Your task to perform on an android device: Open the calendar app, open the side menu, and click the "Day" option Image 0: 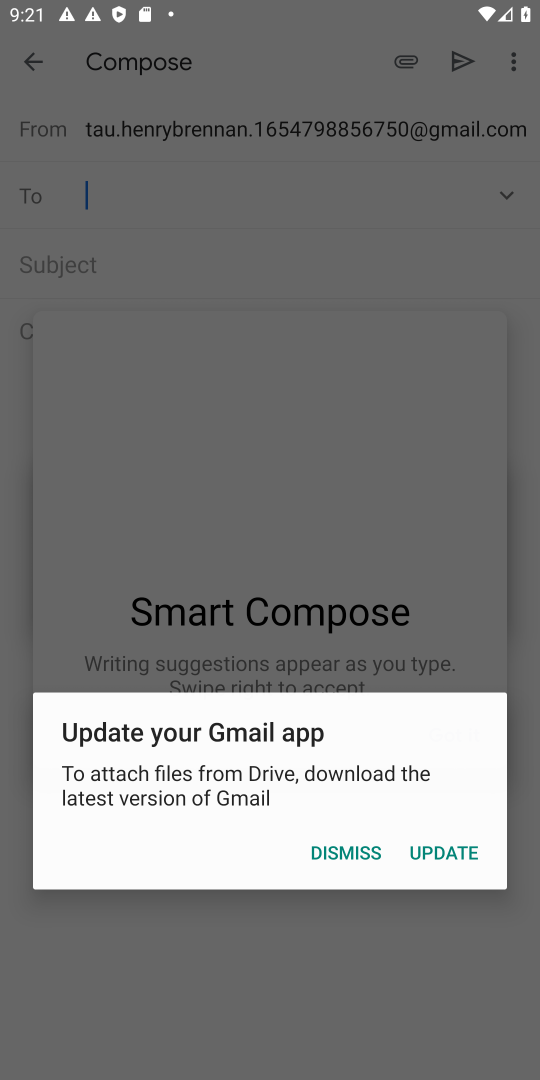
Step 0: click (436, 743)
Your task to perform on an android device: Open the calendar app, open the side menu, and click the "Day" option Image 1: 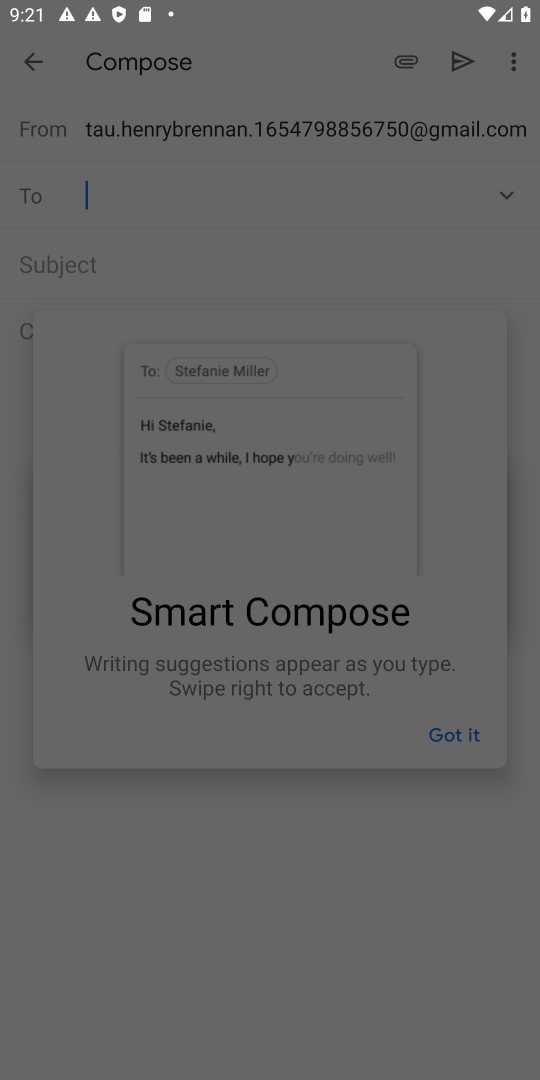
Step 1: click (433, 742)
Your task to perform on an android device: Open the calendar app, open the side menu, and click the "Day" option Image 2: 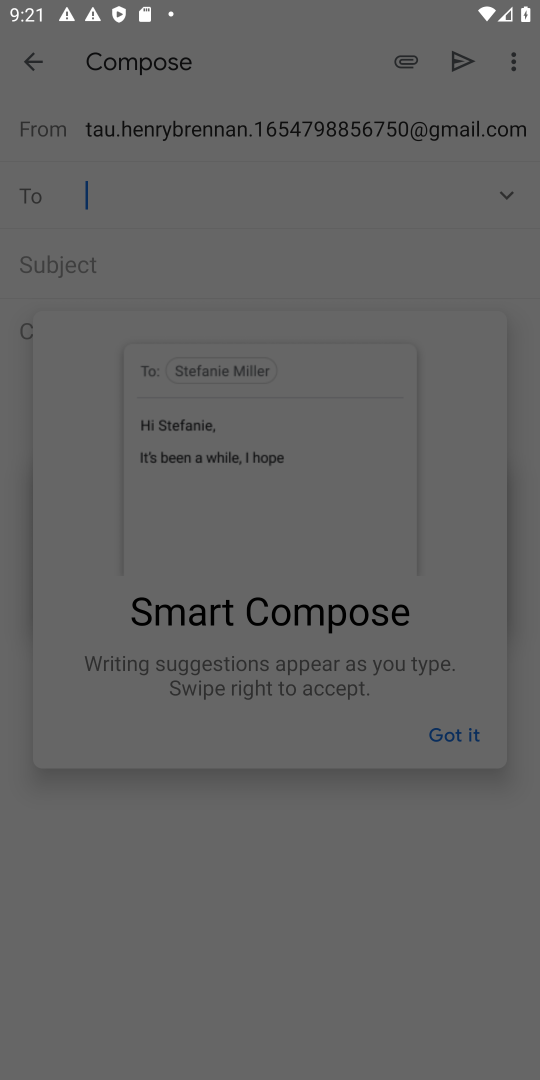
Step 2: click (478, 739)
Your task to perform on an android device: Open the calendar app, open the side menu, and click the "Day" option Image 3: 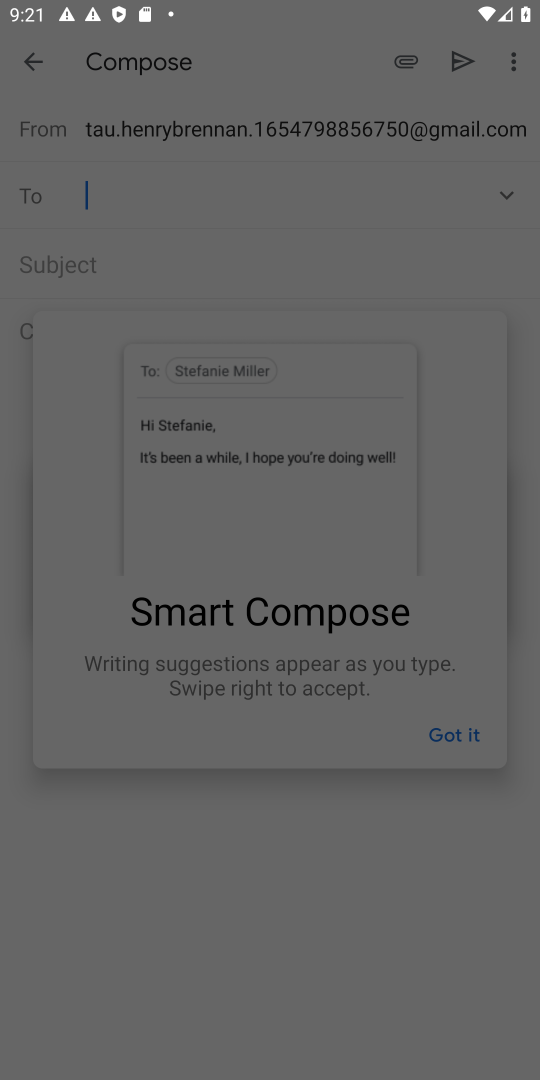
Step 3: click (459, 742)
Your task to perform on an android device: Open the calendar app, open the side menu, and click the "Day" option Image 4: 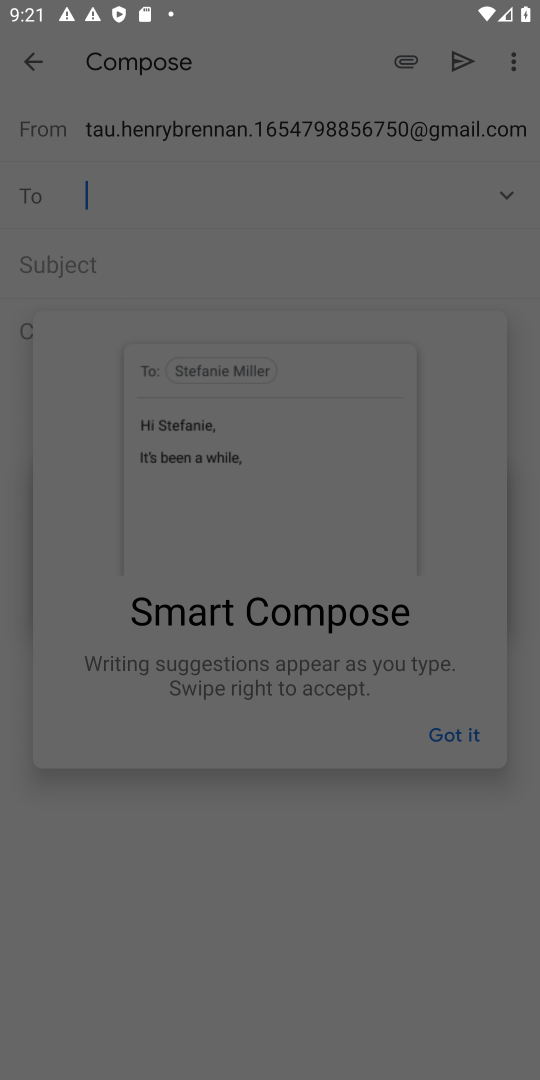
Step 4: click (216, 254)
Your task to perform on an android device: Open the calendar app, open the side menu, and click the "Day" option Image 5: 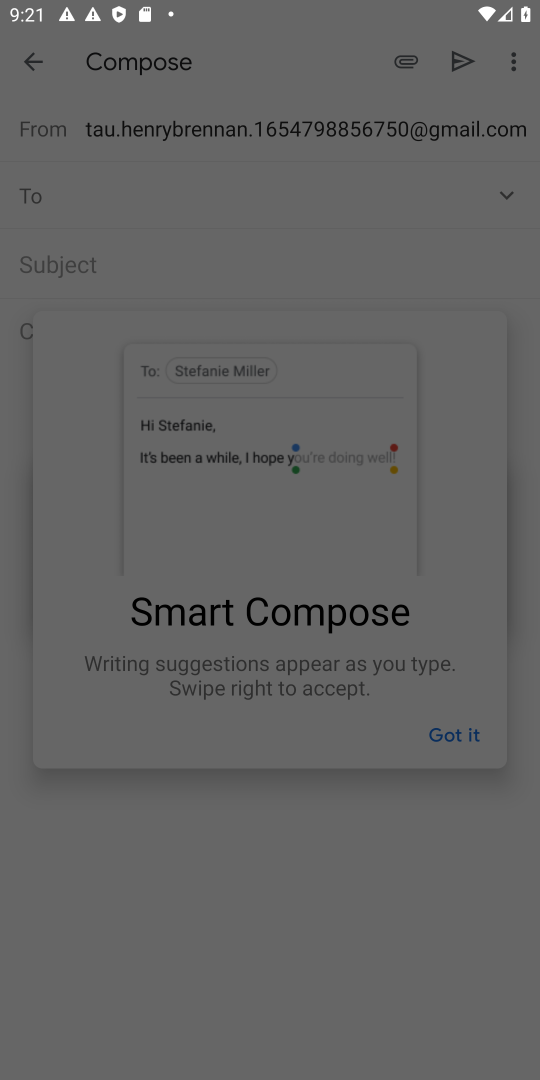
Step 5: drag from (263, 237) to (306, 856)
Your task to perform on an android device: Open the calendar app, open the side menu, and click the "Day" option Image 6: 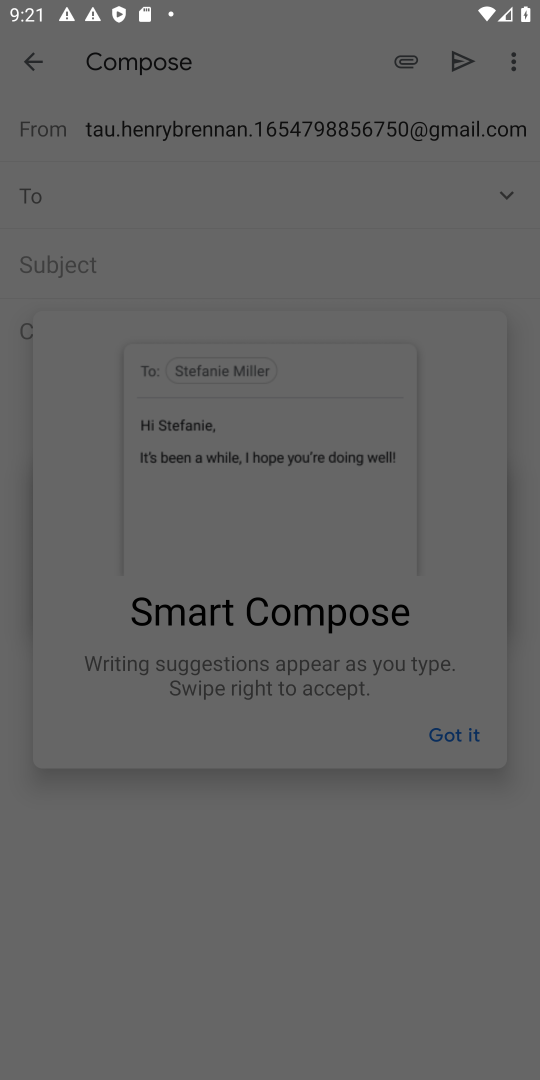
Step 6: click (437, 739)
Your task to perform on an android device: Open the calendar app, open the side menu, and click the "Day" option Image 7: 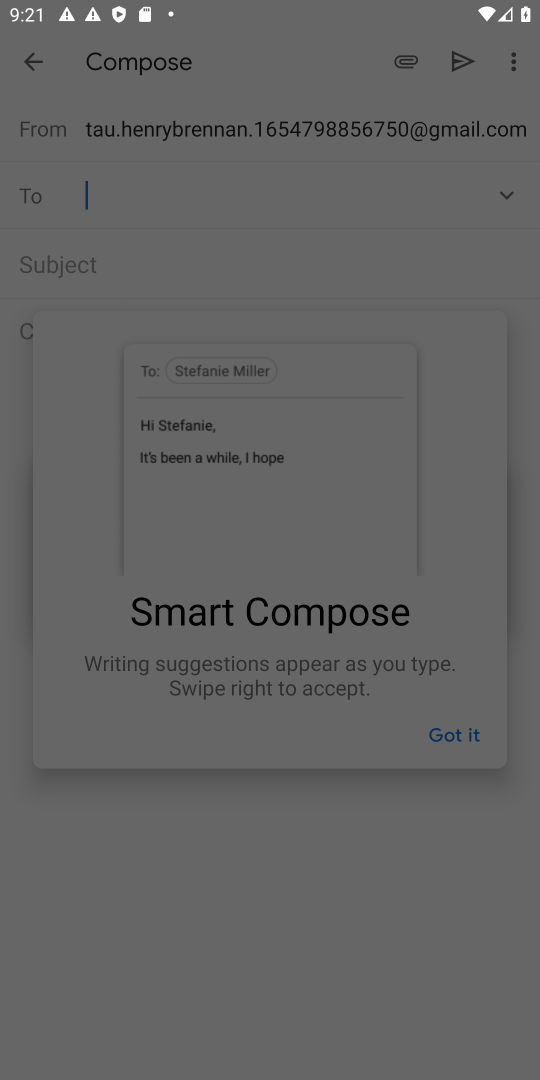
Step 7: press home button
Your task to perform on an android device: Open the calendar app, open the side menu, and click the "Day" option Image 8: 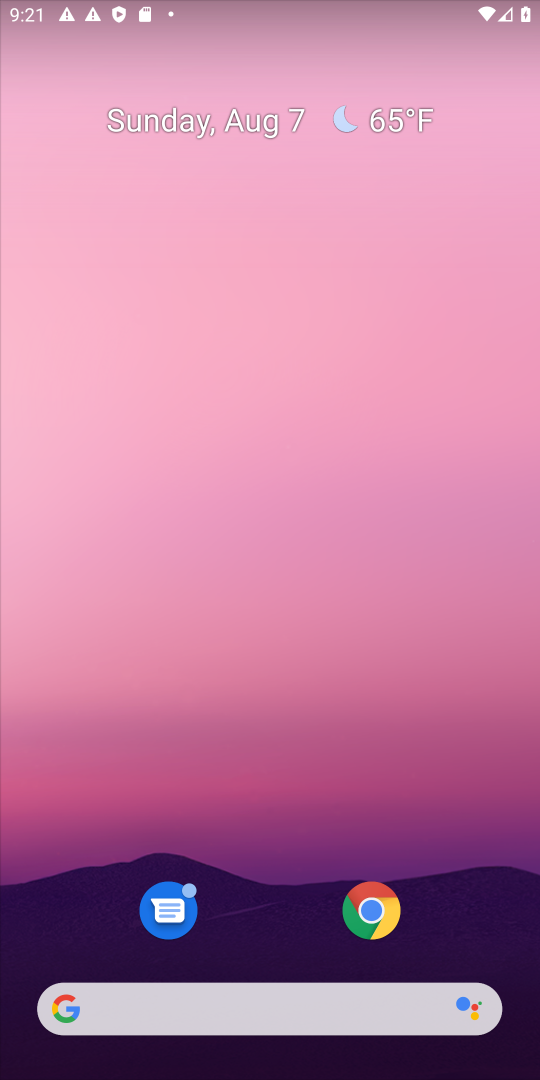
Step 8: drag from (290, 939) to (355, 271)
Your task to perform on an android device: Open the calendar app, open the side menu, and click the "Day" option Image 9: 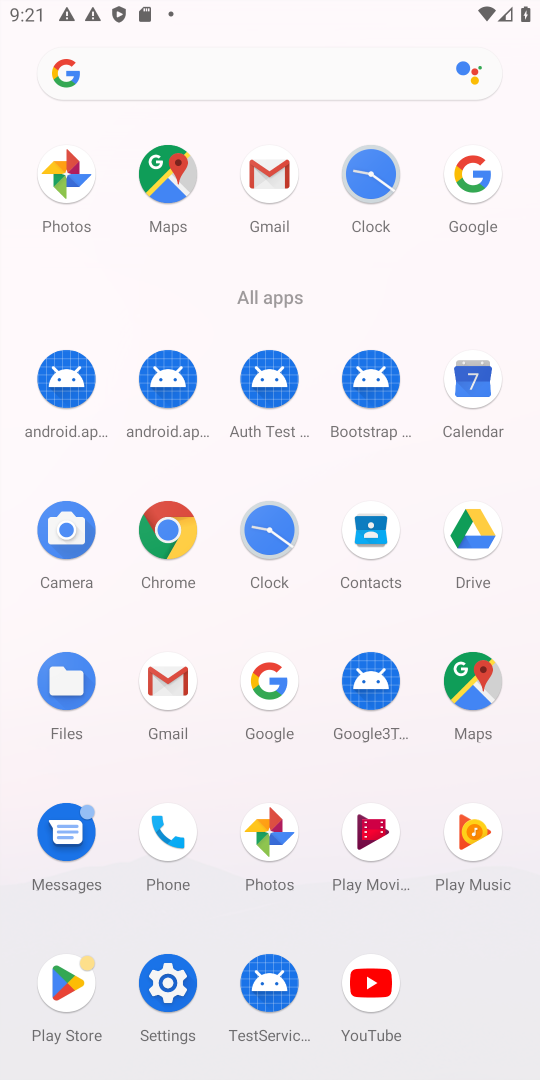
Step 9: click (484, 383)
Your task to perform on an android device: Open the calendar app, open the side menu, and click the "Day" option Image 10: 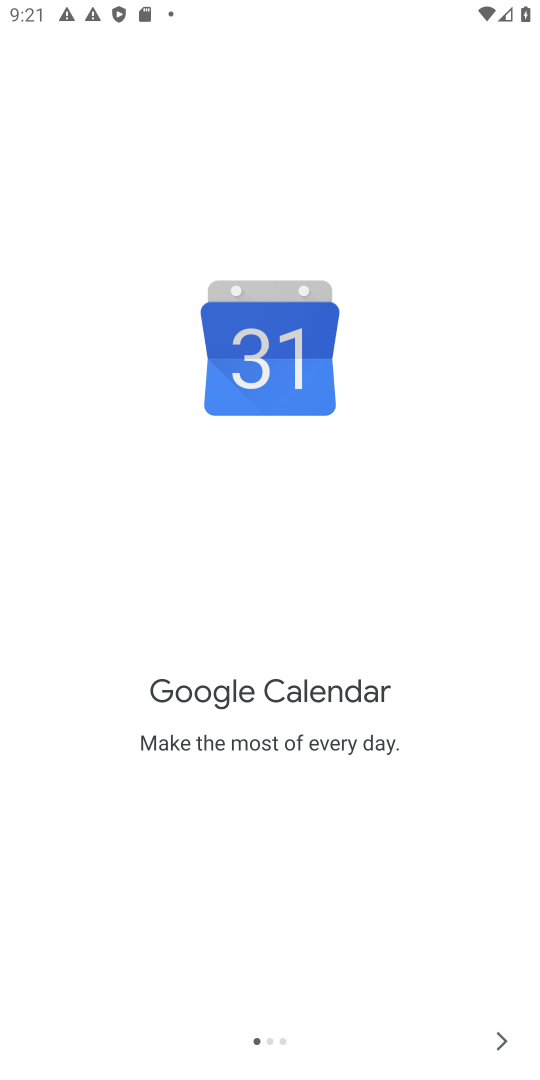
Step 10: click (492, 1042)
Your task to perform on an android device: Open the calendar app, open the side menu, and click the "Day" option Image 11: 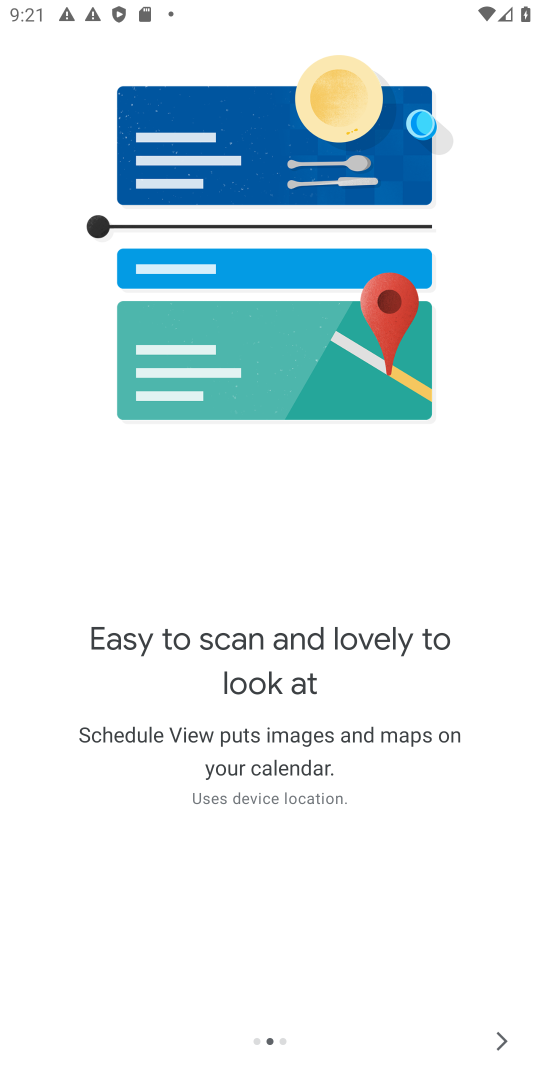
Step 11: click (492, 1042)
Your task to perform on an android device: Open the calendar app, open the side menu, and click the "Day" option Image 12: 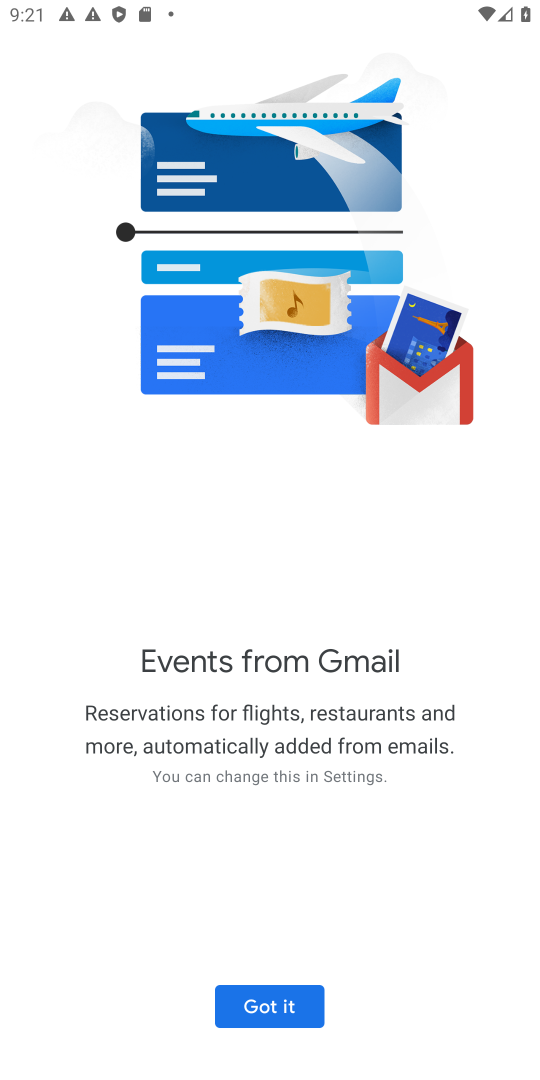
Step 12: click (251, 1001)
Your task to perform on an android device: Open the calendar app, open the side menu, and click the "Day" option Image 13: 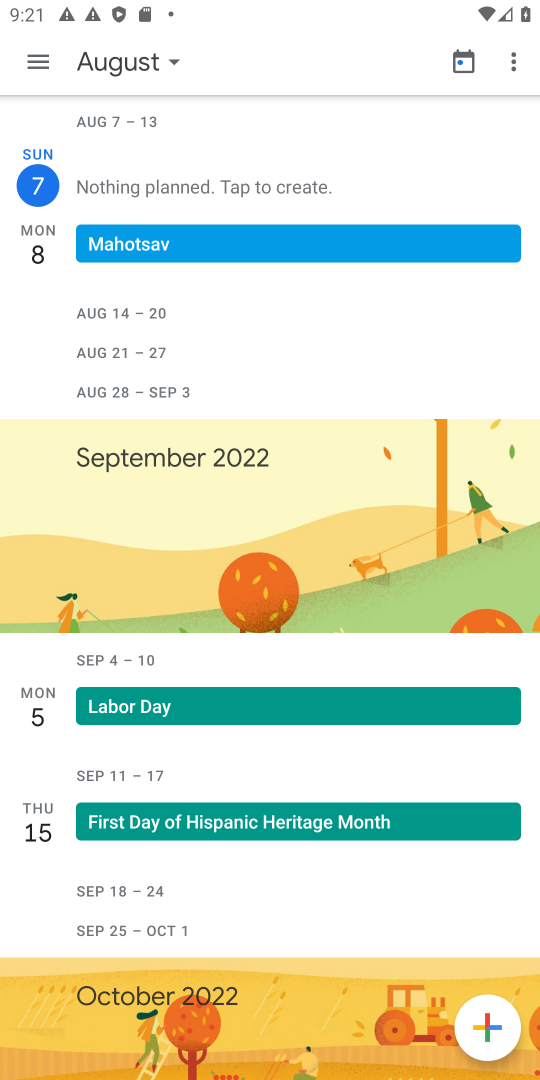
Step 13: click (37, 64)
Your task to perform on an android device: Open the calendar app, open the side menu, and click the "Day" option Image 14: 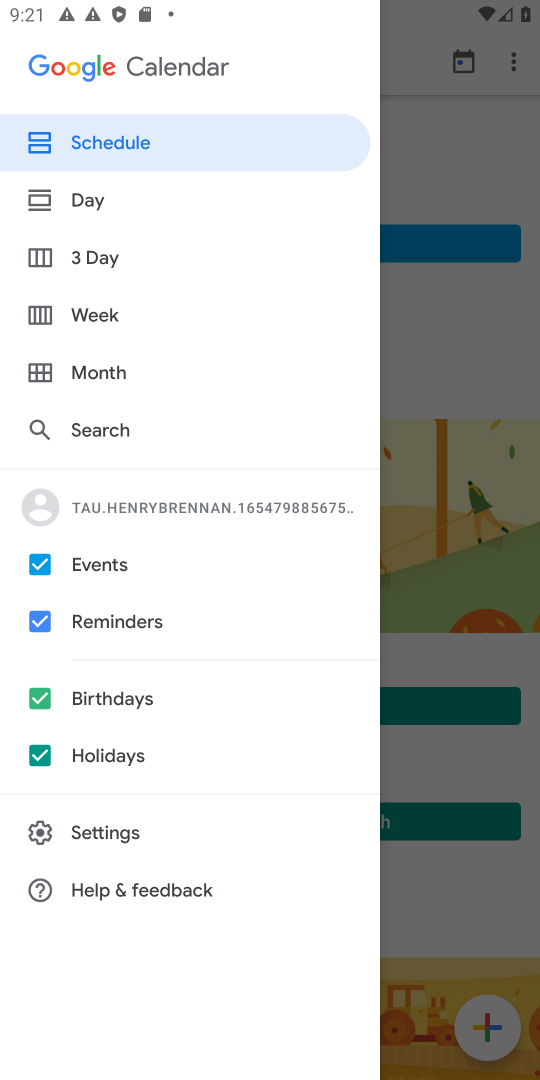
Step 14: click (80, 201)
Your task to perform on an android device: Open the calendar app, open the side menu, and click the "Day" option Image 15: 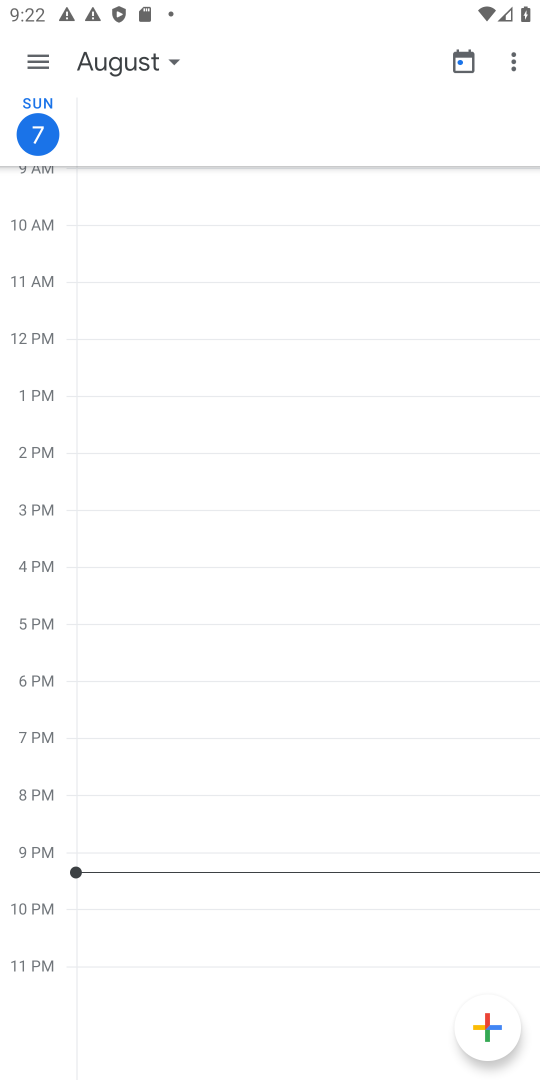
Step 15: task complete